Your task to perform on an android device: turn on javascript in the chrome app Image 0: 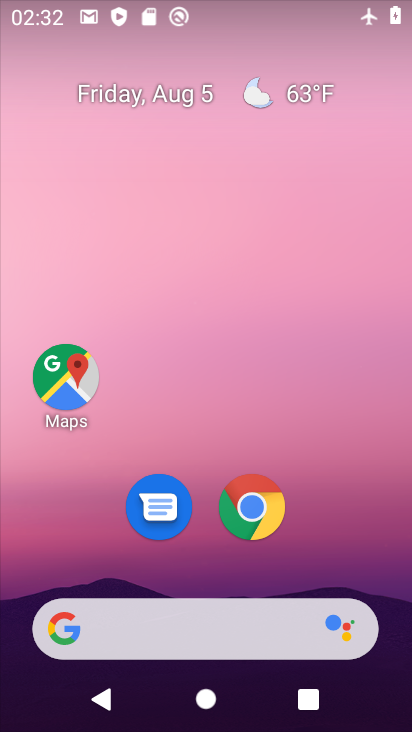
Step 0: click (263, 520)
Your task to perform on an android device: turn on javascript in the chrome app Image 1: 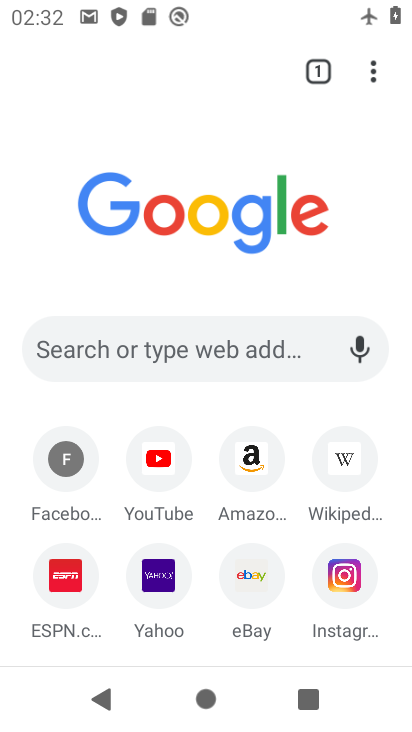
Step 1: click (370, 65)
Your task to perform on an android device: turn on javascript in the chrome app Image 2: 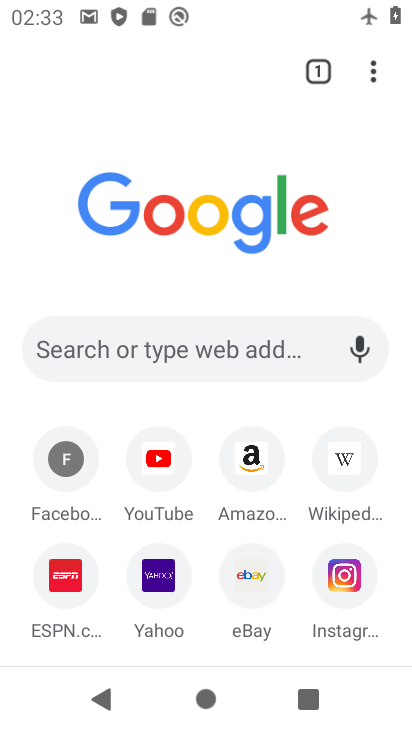
Step 2: click (373, 55)
Your task to perform on an android device: turn on javascript in the chrome app Image 3: 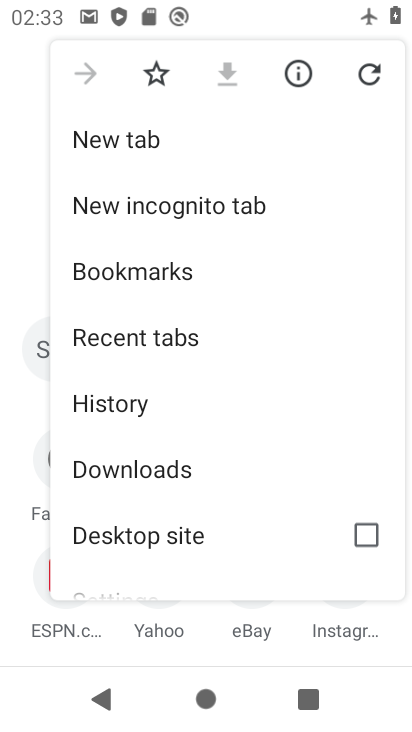
Step 3: drag from (157, 510) to (164, 154)
Your task to perform on an android device: turn on javascript in the chrome app Image 4: 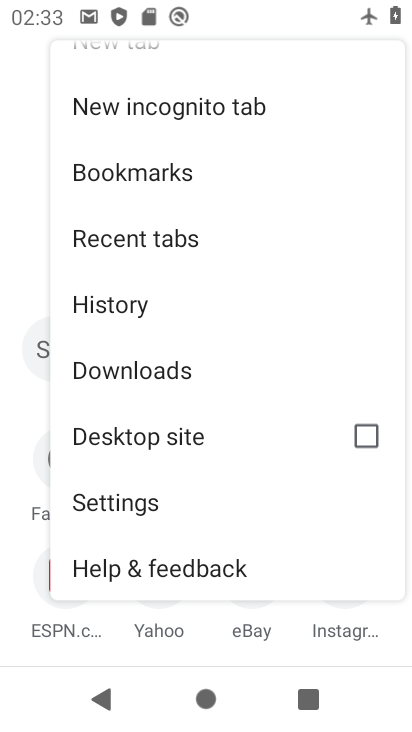
Step 4: click (114, 507)
Your task to perform on an android device: turn on javascript in the chrome app Image 5: 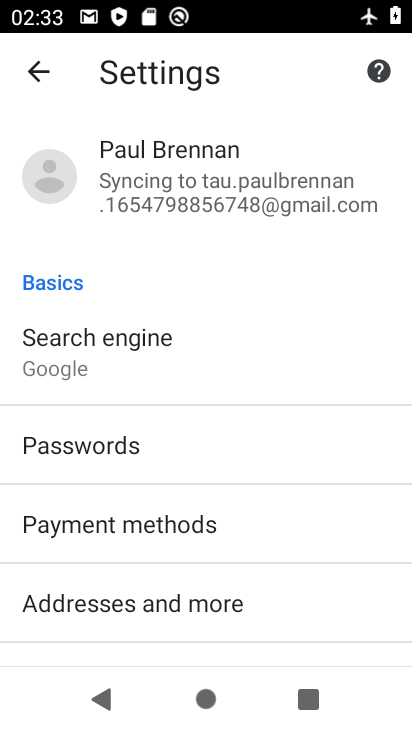
Step 5: drag from (102, 539) to (110, 346)
Your task to perform on an android device: turn on javascript in the chrome app Image 6: 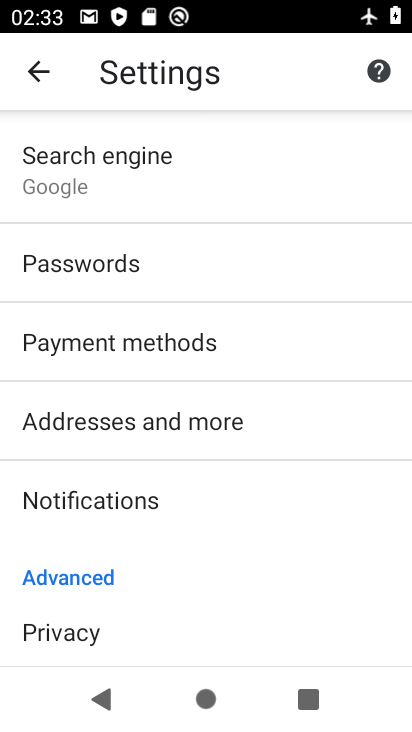
Step 6: drag from (108, 493) to (123, 297)
Your task to perform on an android device: turn on javascript in the chrome app Image 7: 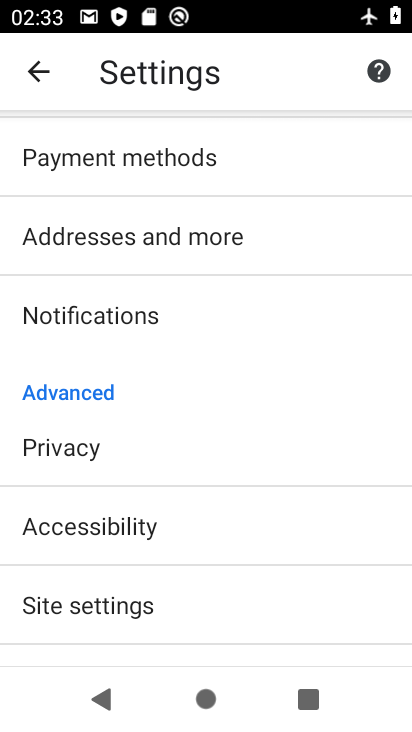
Step 7: click (105, 611)
Your task to perform on an android device: turn on javascript in the chrome app Image 8: 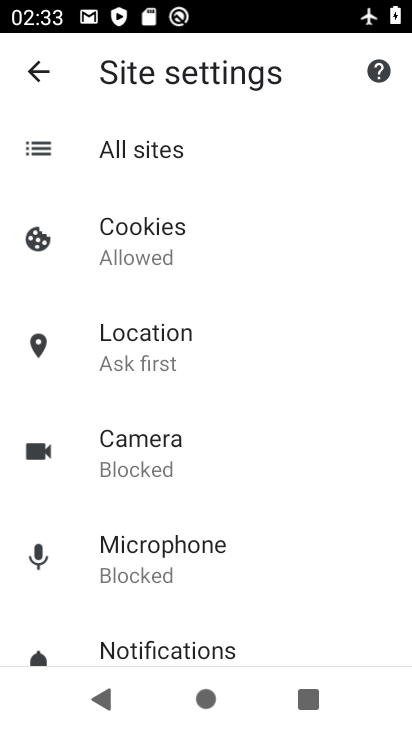
Step 8: drag from (128, 547) to (169, 274)
Your task to perform on an android device: turn on javascript in the chrome app Image 9: 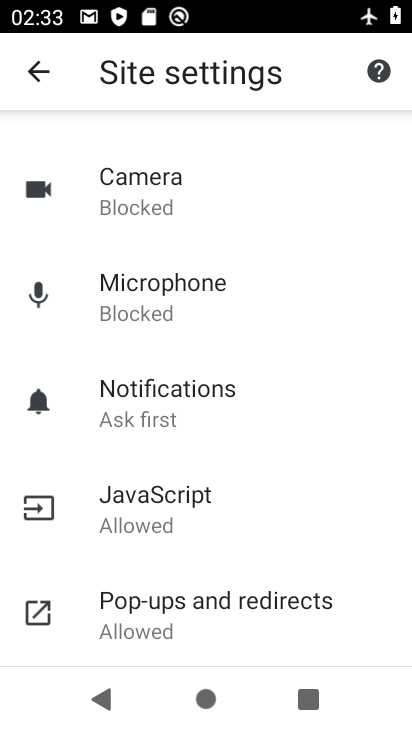
Step 9: click (150, 512)
Your task to perform on an android device: turn on javascript in the chrome app Image 10: 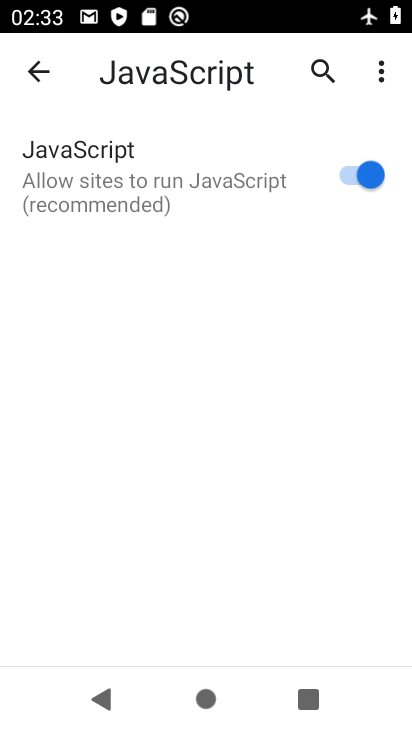
Step 10: task complete